Your task to perform on an android device: Show me productivity apps on the Play Store Image 0: 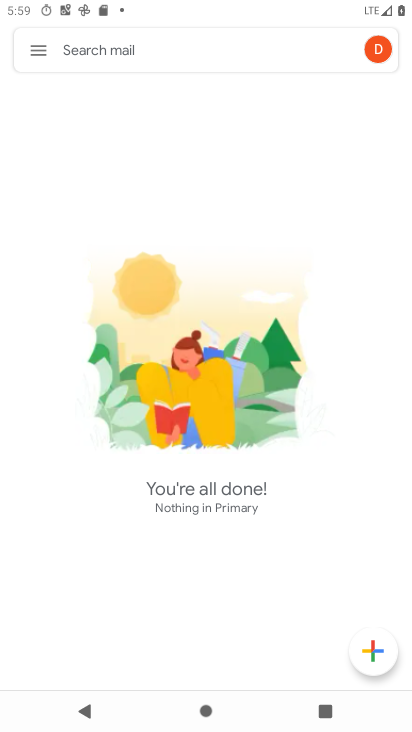
Step 0: press home button
Your task to perform on an android device: Show me productivity apps on the Play Store Image 1: 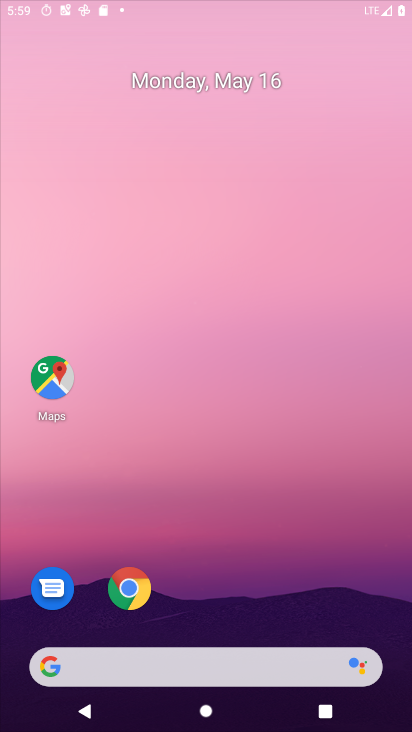
Step 1: drag from (244, 593) to (209, 82)
Your task to perform on an android device: Show me productivity apps on the Play Store Image 2: 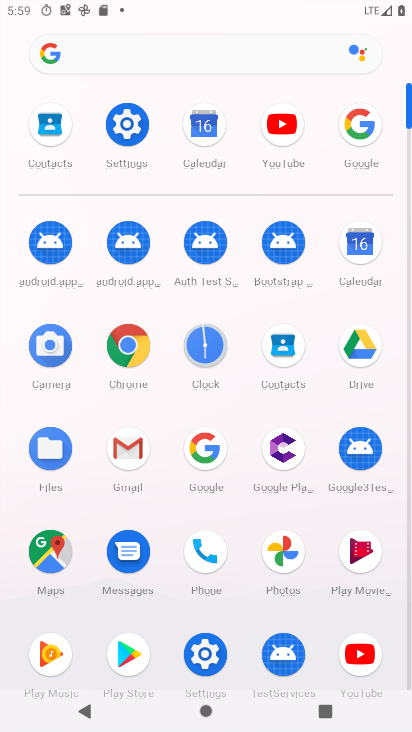
Step 2: click (128, 659)
Your task to perform on an android device: Show me productivity apps on the Play Store Image 3: 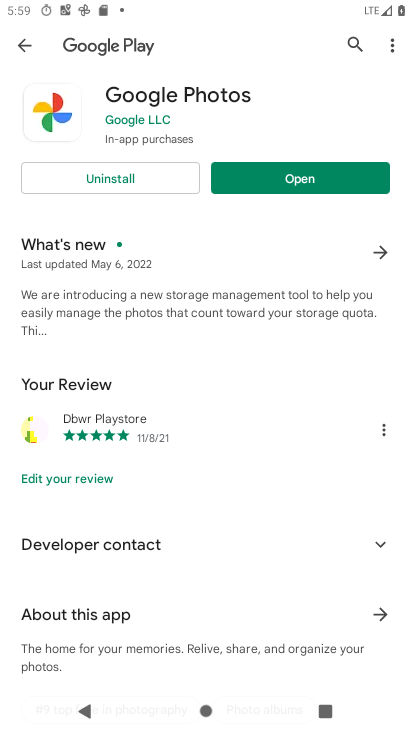
Step 3: click (23, 37)
Your task to perform on an android device: Show me productivity apps on the Play Store Image 4: 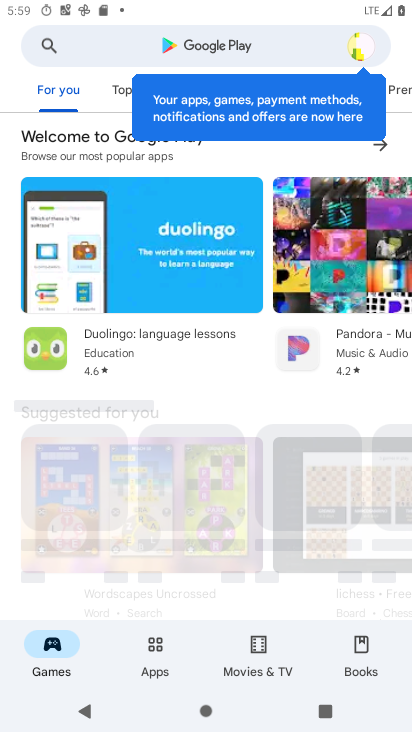
Step 4: click (164, 654)
Your task to perform on an android device: Show me productivity apps on the Play Store Image 5: 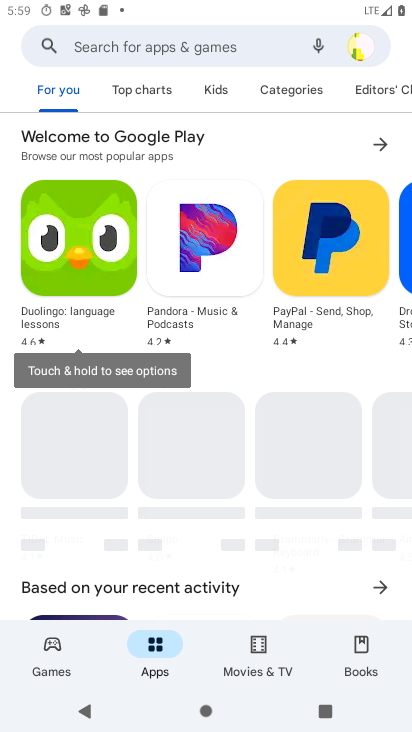
Step 5: click (151, 40)
Your task to perform on an android device: Show me productivity apps on the Play Store Image 6: 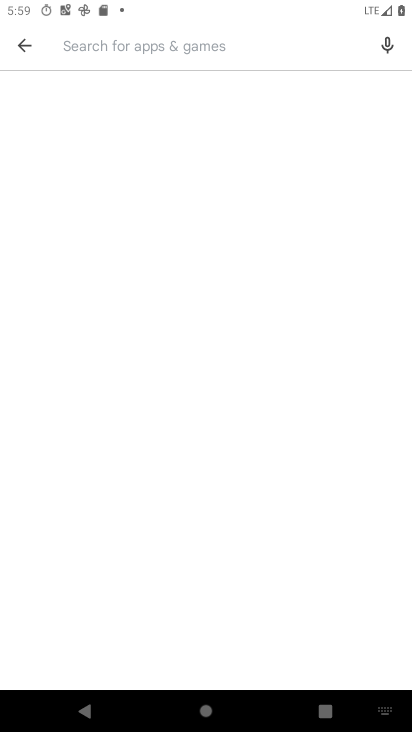
Step 6: type "productivity apps"
Your task to perform on an android device: Show me productivity apps on the Play Store Image 7: 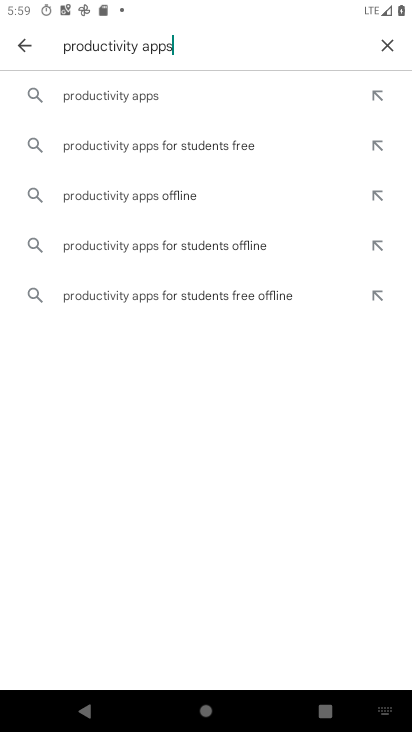
Step 7: click (115, 94)
Your task to perform on an android device: Show me productivity apps on the Play Store Image 8: 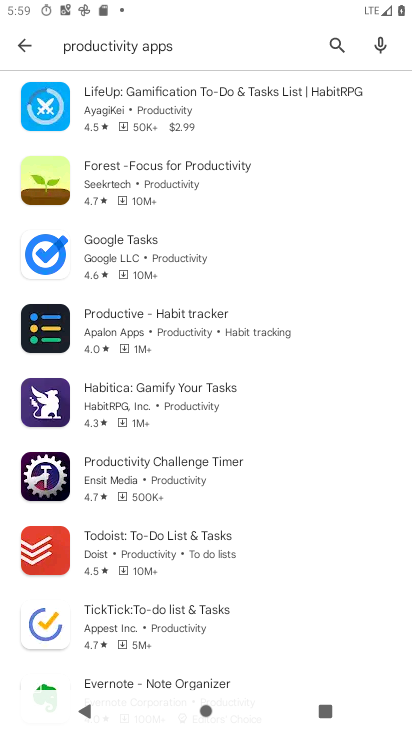
Step 8: task complete